Your task to perform on an android device: Open network settings Image 0: 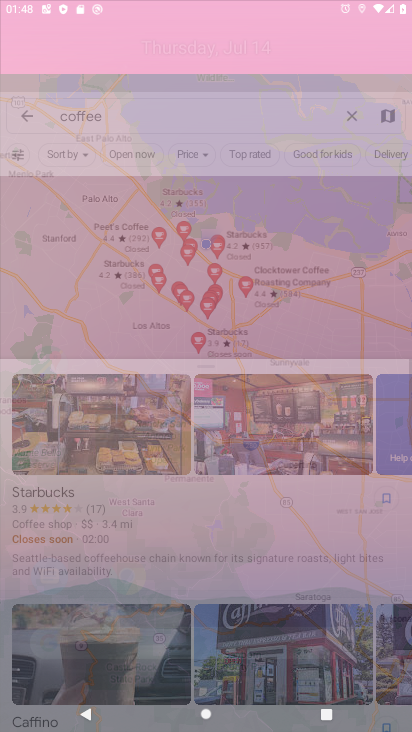
Step 0: press home button
Your task to perform on an android device: Open network settings Image 1: 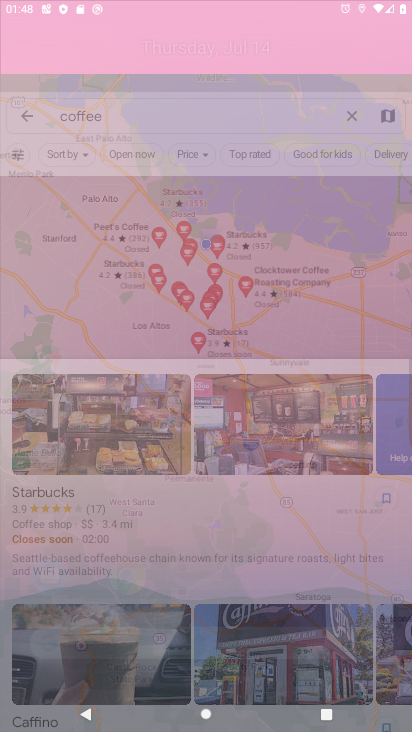
Step 1: drag from (352, 120) to (349, 208)
Your task to perform on an android device: Open network settings Image 2: 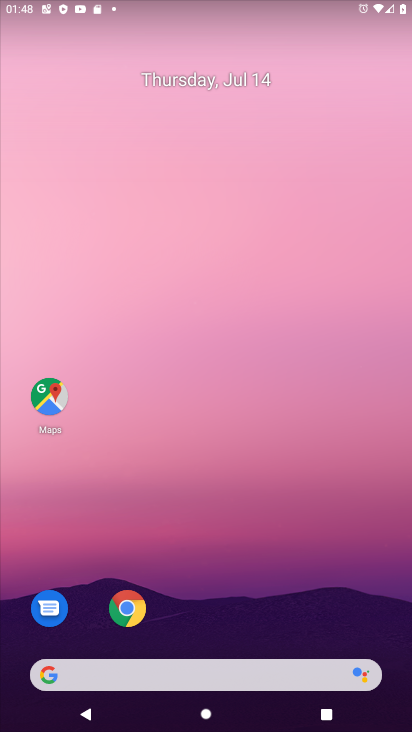
Step 2: press home button
Your task to perform on an android device: Open network settings Image 3: 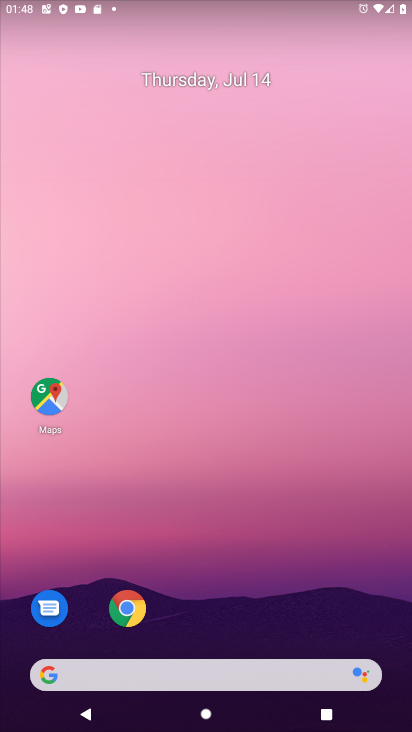
Step 3: drag from (275, 611) to (288, 376)
Your task to perform on an android device: Open network settings Image 4: 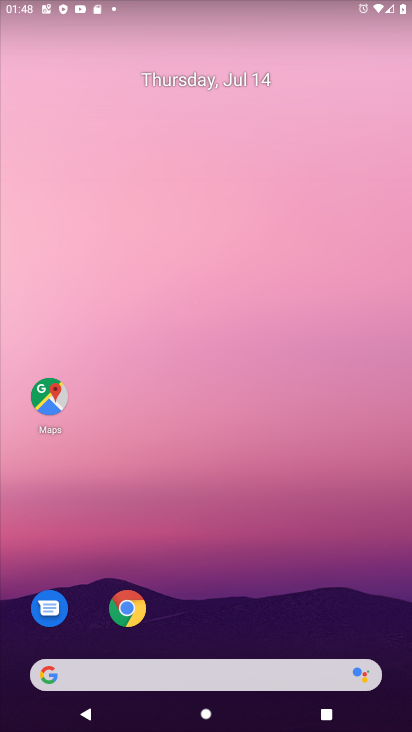
Step 4: drag from (250, 619) to (343, 1)
Your task to perform on an android device: Open network settings Image 5: 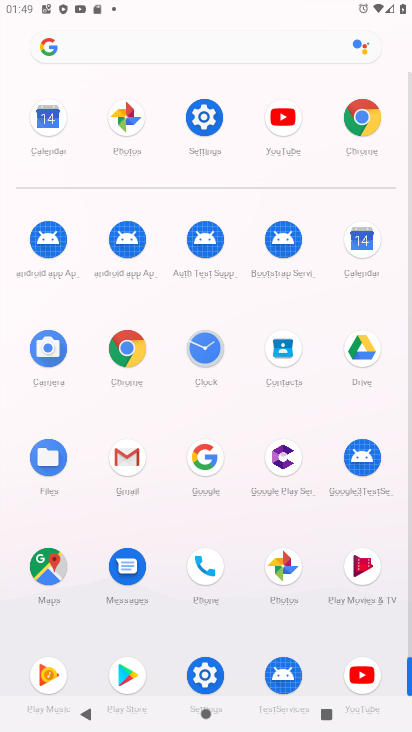
Step 5: click (218, 132)
Your task to perform on an android device: Open network settings Image 6: 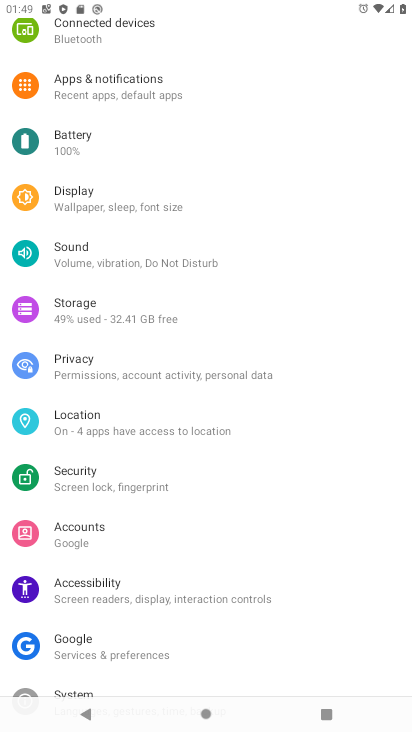
Step 6: drag from (162, 105) to (164, 473)
Your task to perform on an android device: Open network settings Image 7: 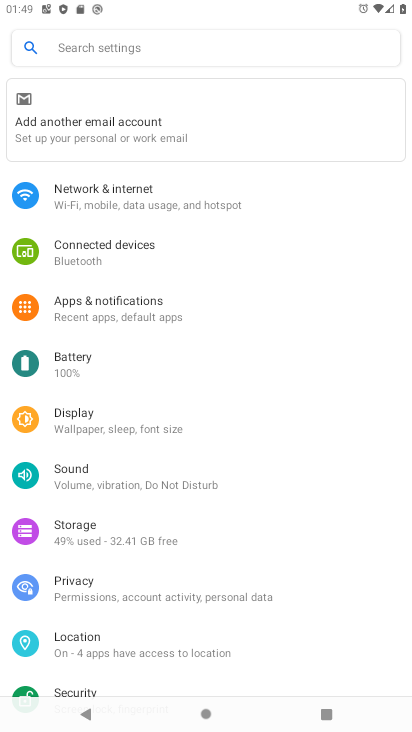
Step 7: click (156, 205)
Your task to perform on an android device: Open network settings Image 8: 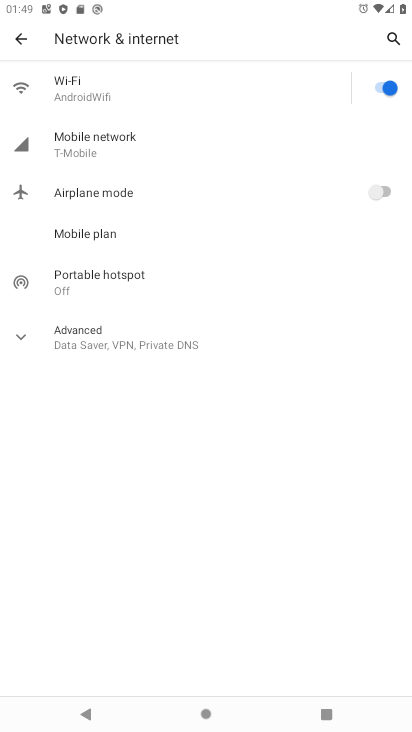
Step 8: task complete